Your task to perform on an android device: turn on location history Image 0: 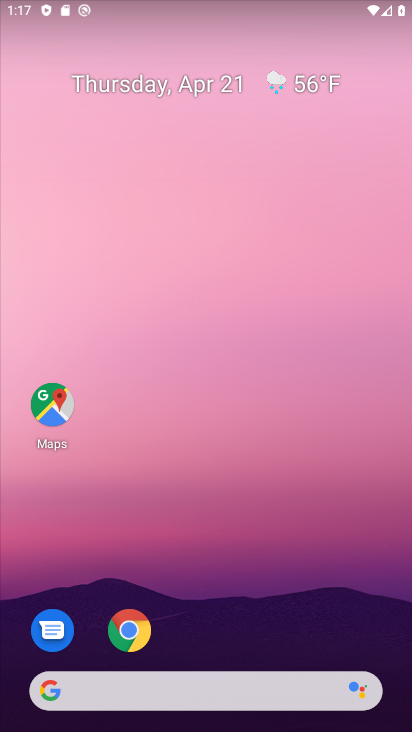
Step 0: drag from (161, 670) to (114, 31)
Your task to perform on an android device: turn on location history Image 1: 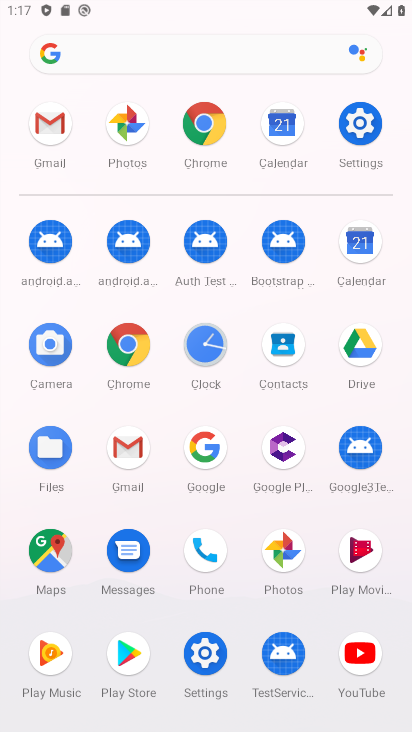
Step 1: click (207, 650)
Your task to perform on an android device: turn on location history Image 2: 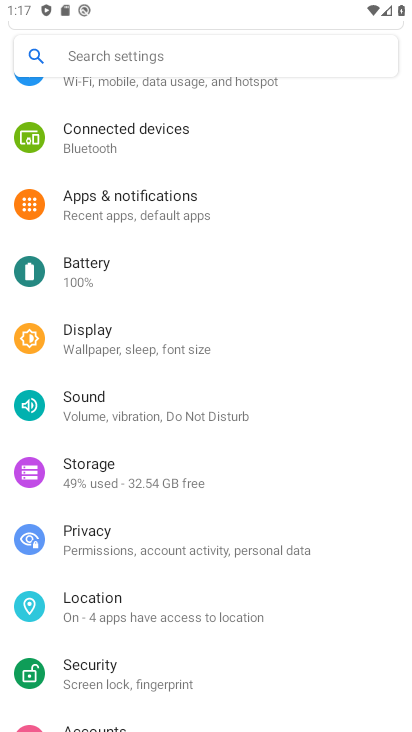
Step 2: click (128, 599)
Your task to perform on an android device: turn on location history Image 3: 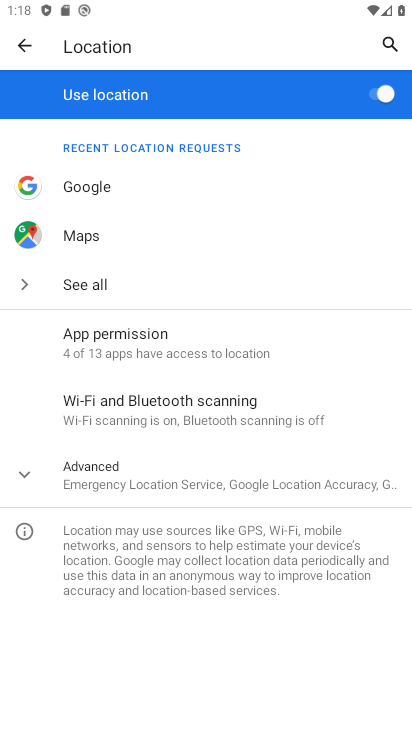
Step 3: click (175, 455)
Your task to perform on an android device: turn on location history Image 4: 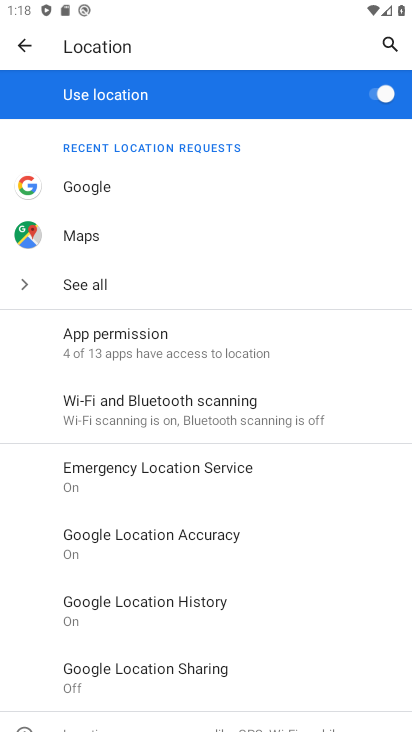
Step 4: click (208, 597)
Your task to perform on an android device: turn on location history Image 5: 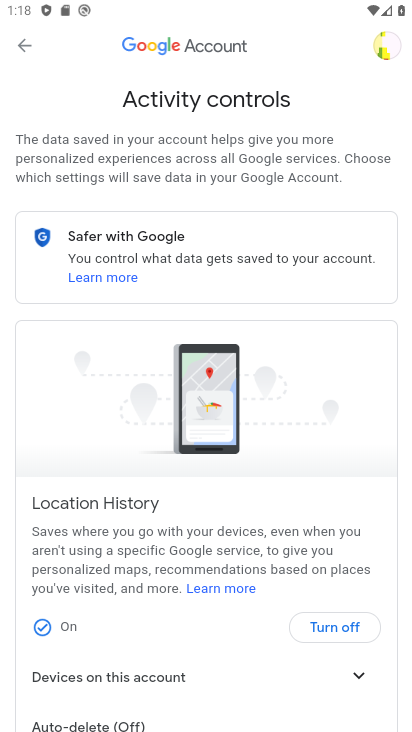
Step 5: task complete